Your task to perform on an android device: Open Wikipedia Image 0: 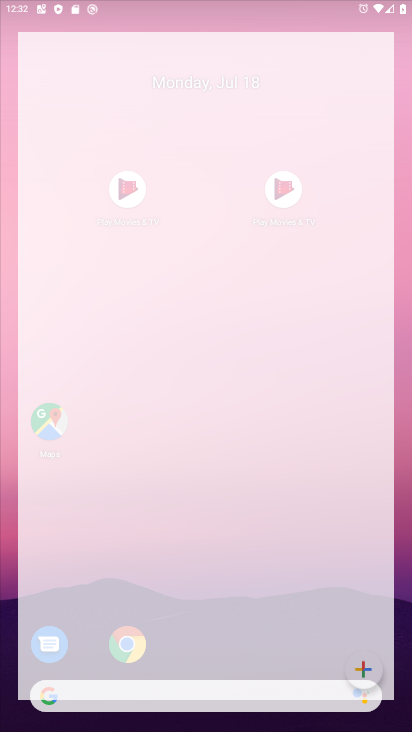
Step 0: click (409, 396)
Your task to perform on an android device: Open Wikipedia Image 1: 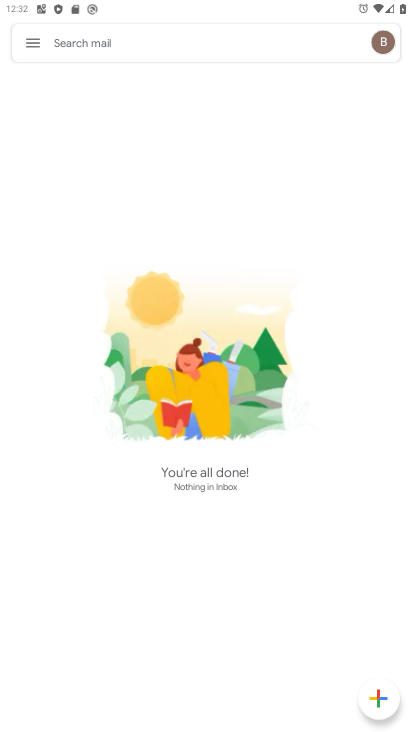
Step 1: press home button
Your task to perform on an android device: Open Wikipedia Image 2: 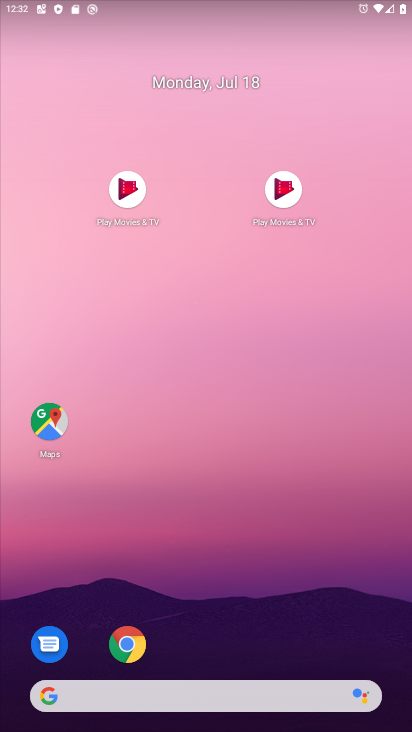
Step 2: click (221, 572)
Your task to perform on an android device: Open Wikipedia Image 3: 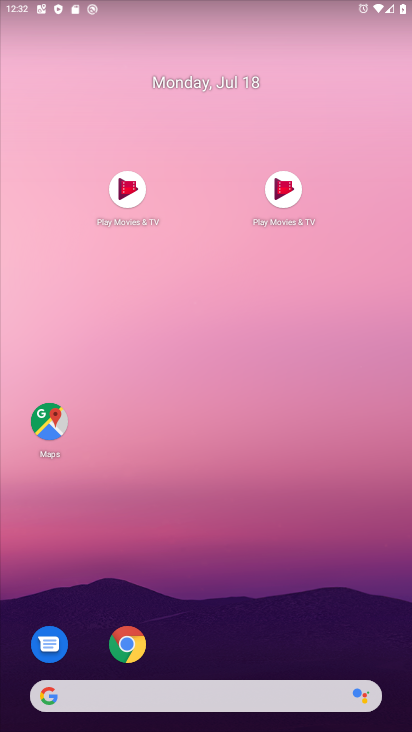
Step 3: drag from (264, 655) to (227, 66)
Your task to perform on an android device: Open Wikipedia Image 4: 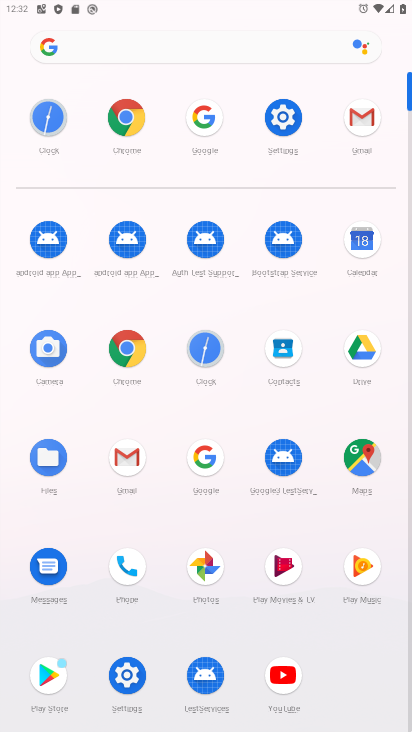
Step 4: drag from (259, 617) to (230, 94)
Your task to perform on an android device: Open Wikipedia Image 5: 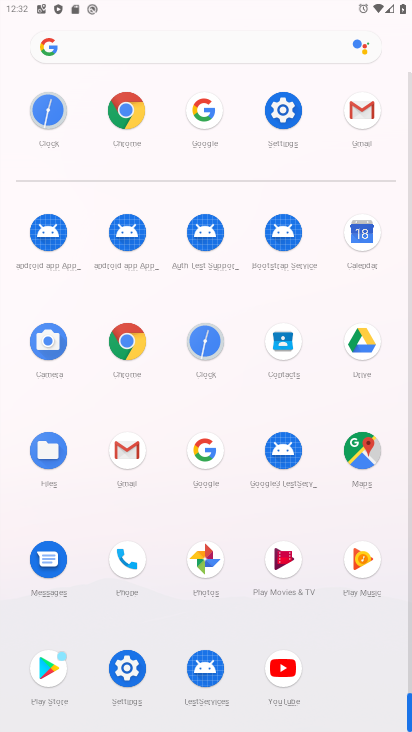
Step 5: click (126, 122)
Your task to perform on an android device: Open Wikipedia Image 6: 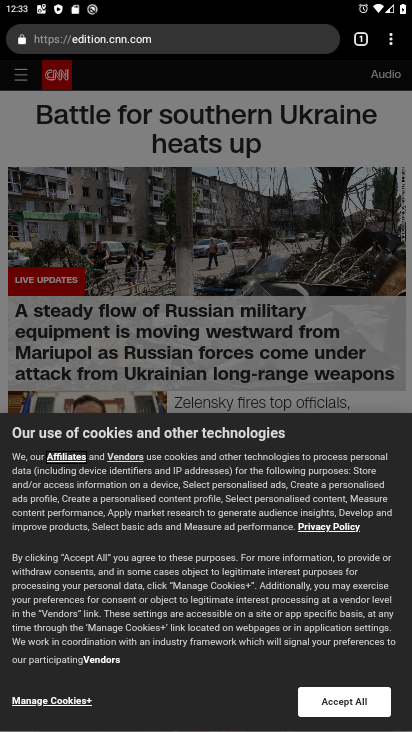
Step 6: click (151, 44)
Your task to perform on an android device: Open Wikipedia Image 7: 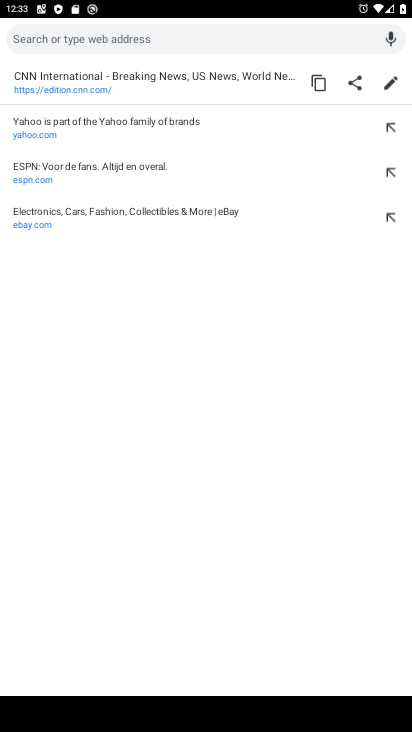
Step 7: type "wikipedia"
Your task to perform on an android device: Open Wikipedia Image 8: 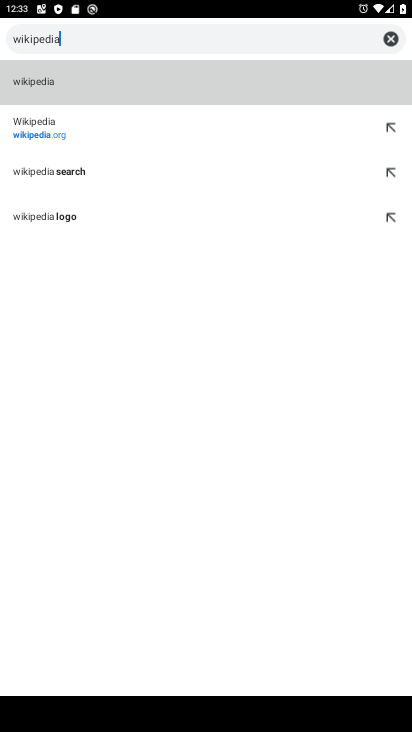
Step 8: click (54, 139)
Your task to perform on an android device: Open Wikipedia Image 9: 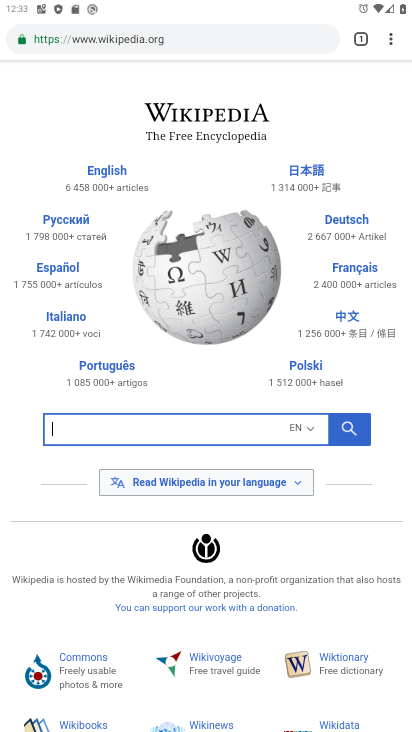
Step 9: task complete